Your task to perform on an android device: Google the capital of Bolivia Image 0: 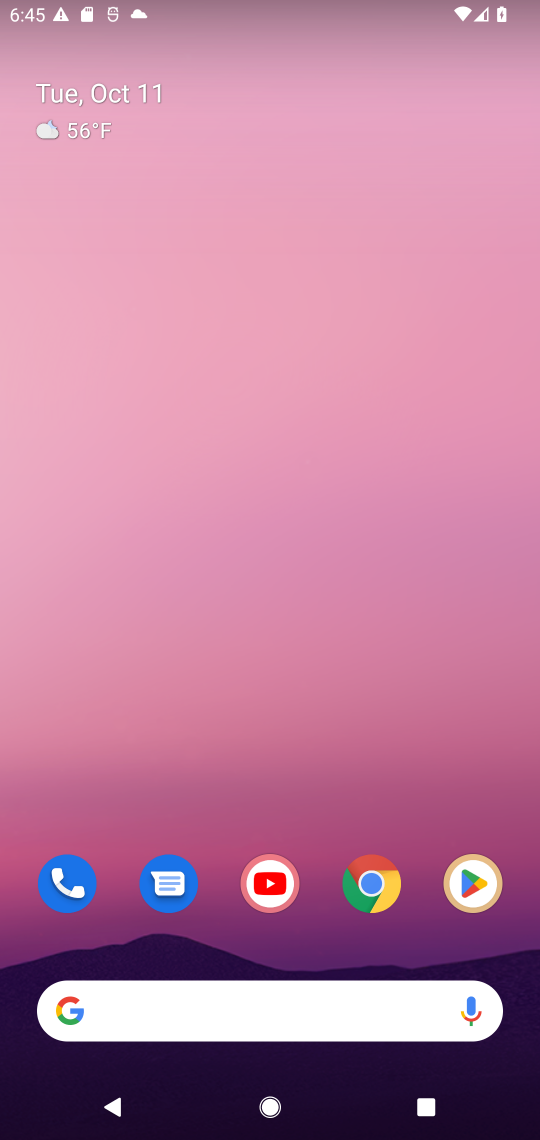
Step 0: drag from (332, 915) to (531, 391)
Your task to perform on an android device: Google the capital of Bolivia Image 1: 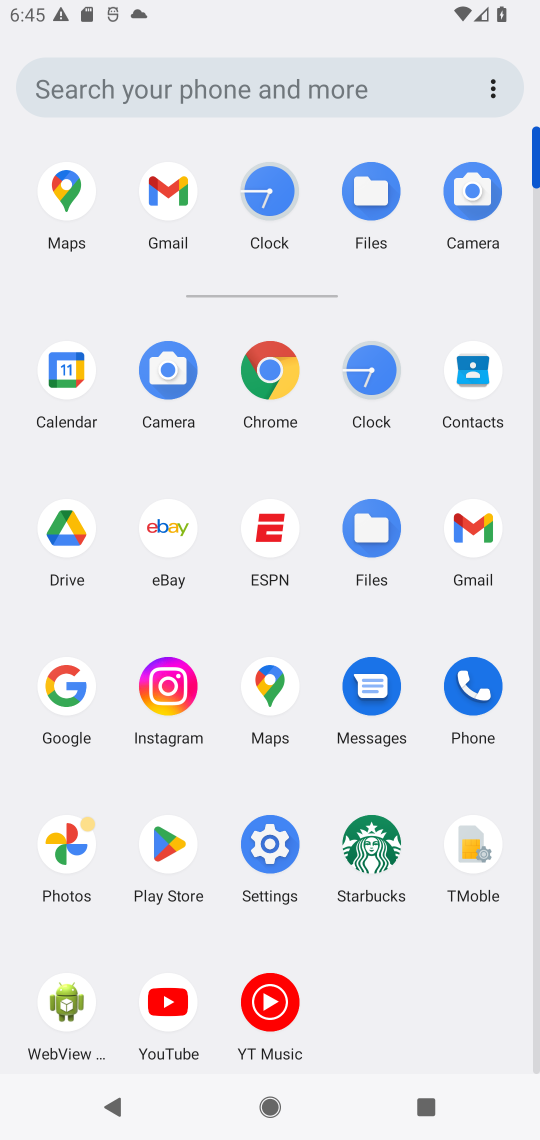
Step 1: click (85, 691)
Your task to perform on an android device: Google the capital of Bolivia Image 2: 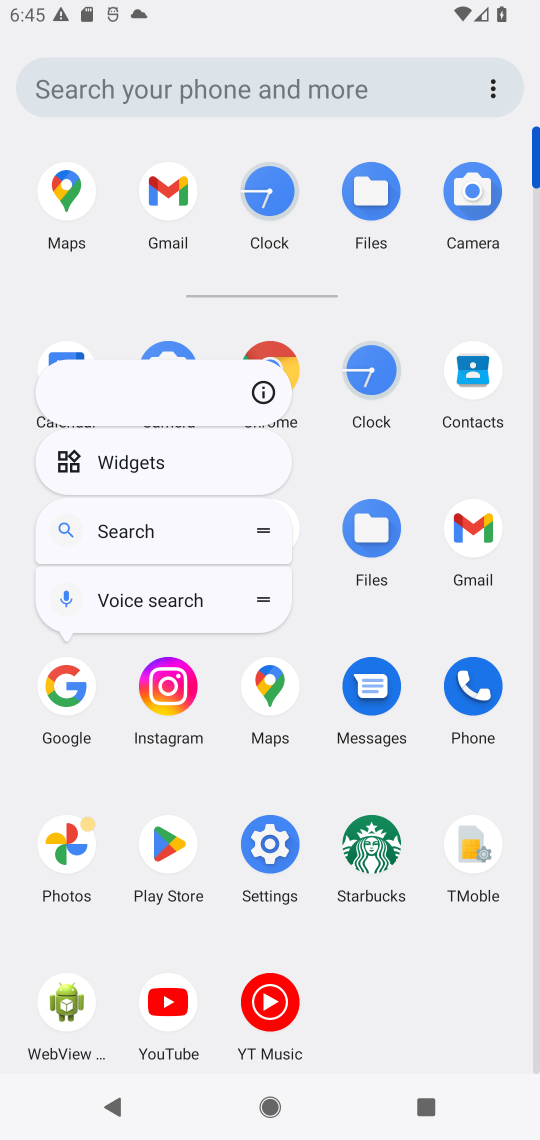
Step 2: click (62, 687)
Your task to perform on an android device: Google the capital of Bolivia Image 3: 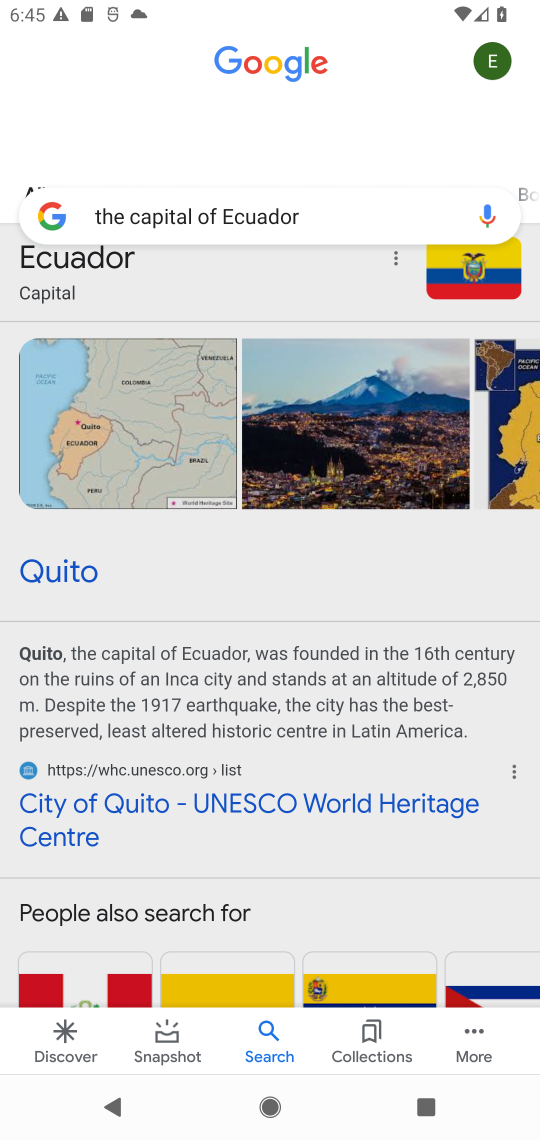
Step 3: click (288, 215)
Your task to perform on an android device: Google the capital of Bolivia Image 4: 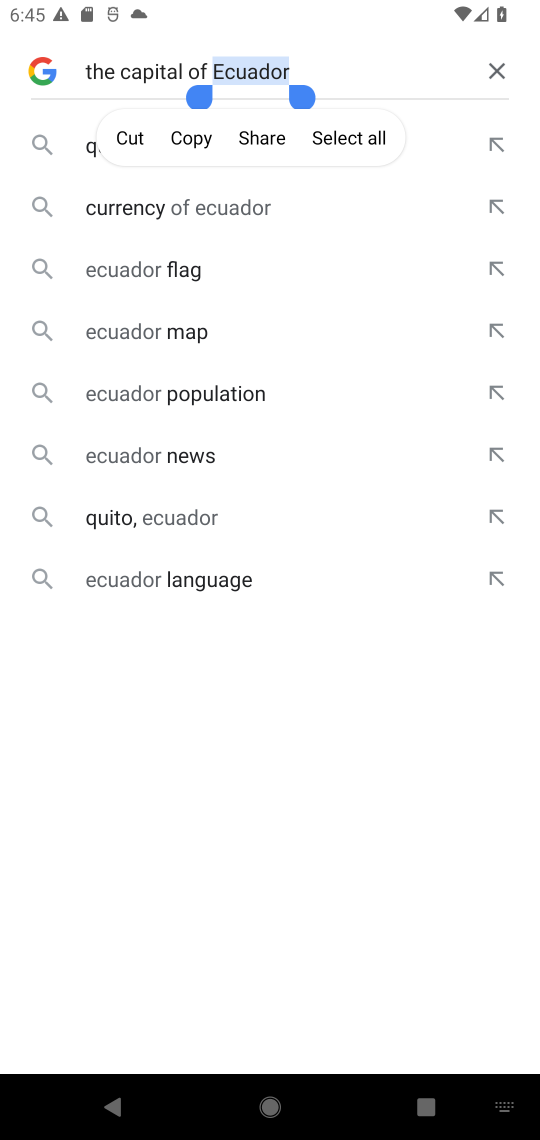
Step 4: click (501, 60)
Your task to perform on an android device: Google the capital of Bolivia Image 5: 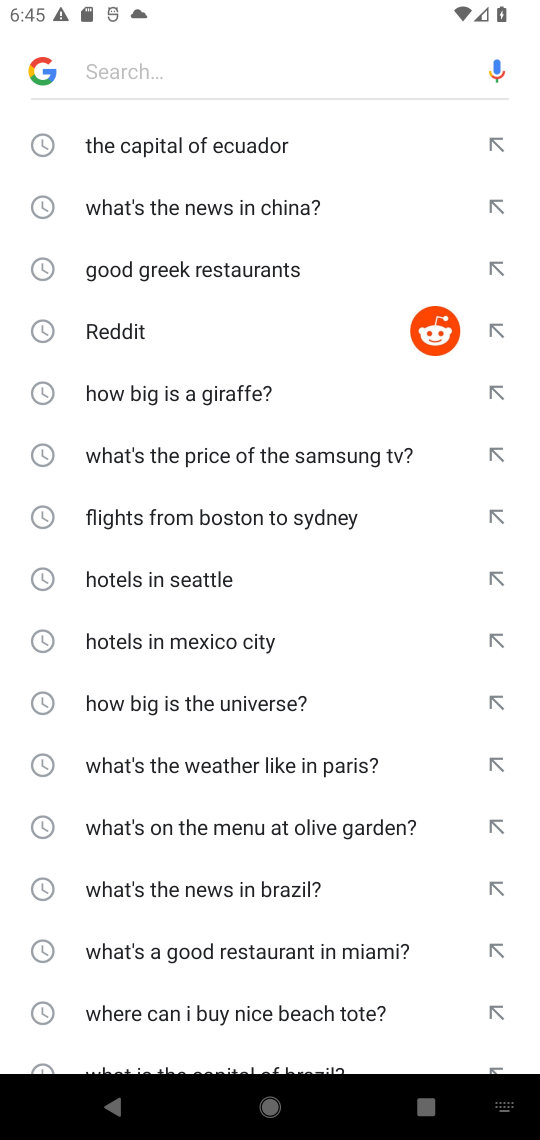
Step 5: type "the capital of Bolivia"
Your task to perform on an android device: Google the capital of Bolivia Image 6: 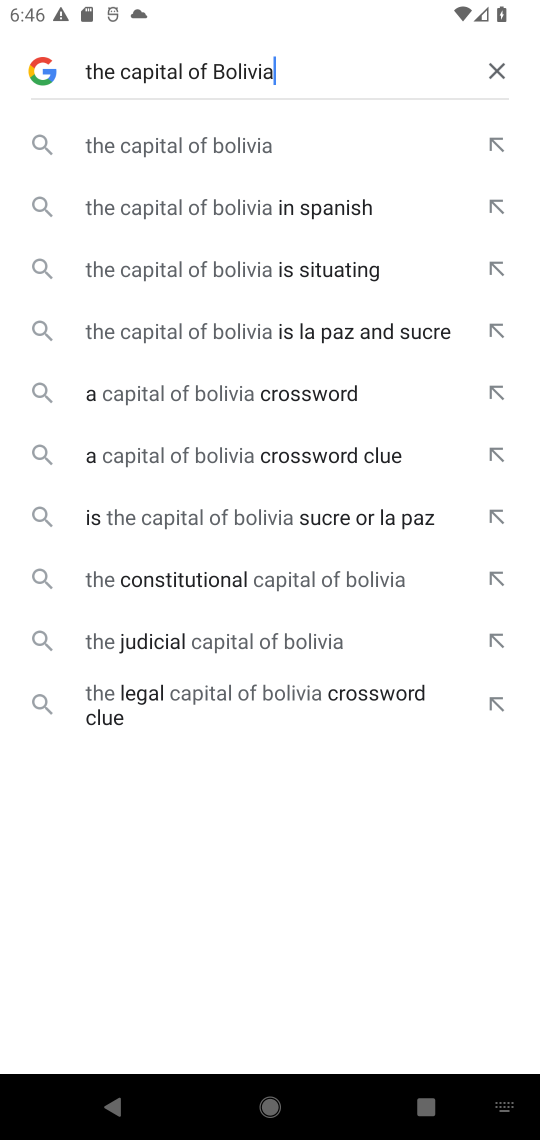
Step 6: press enter
Your task to perform on an android device: Google the capital of Bolivia Image 7: 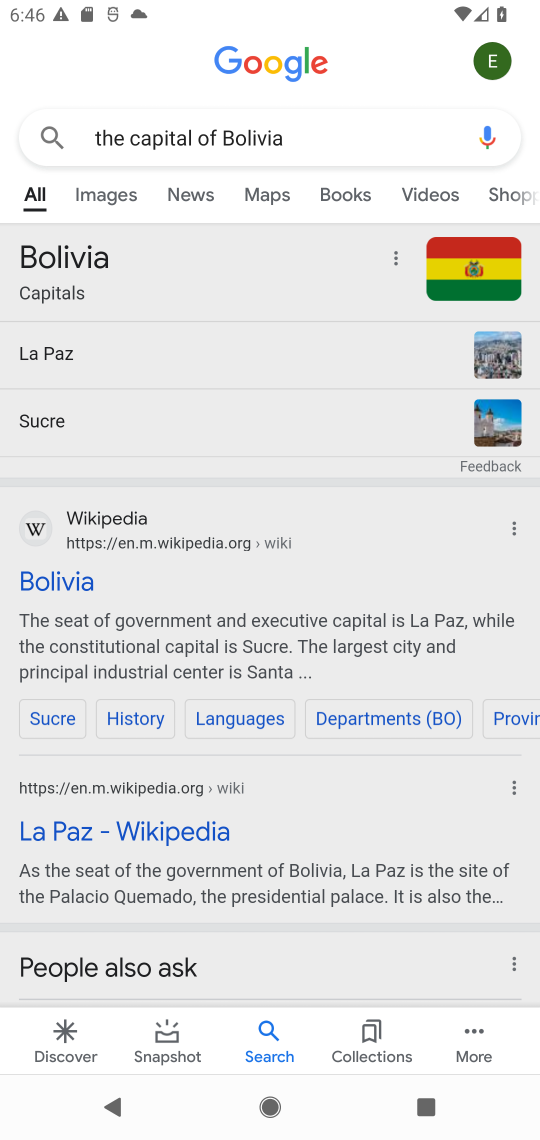
Step 7: task complete